Your task to perform on an android device: set an alarm Image 0: 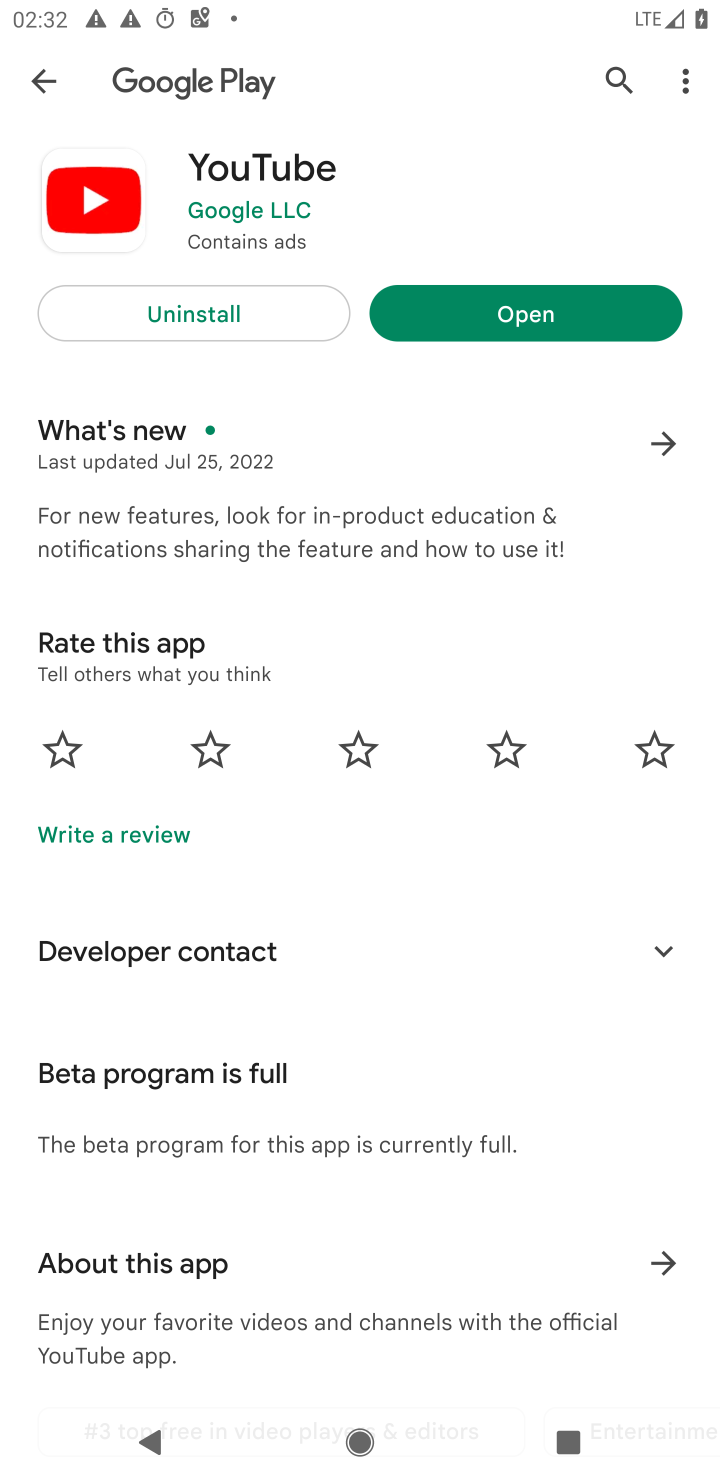
Step 0: press home button
Your task to perform on an android device: set an alarm Image 1: 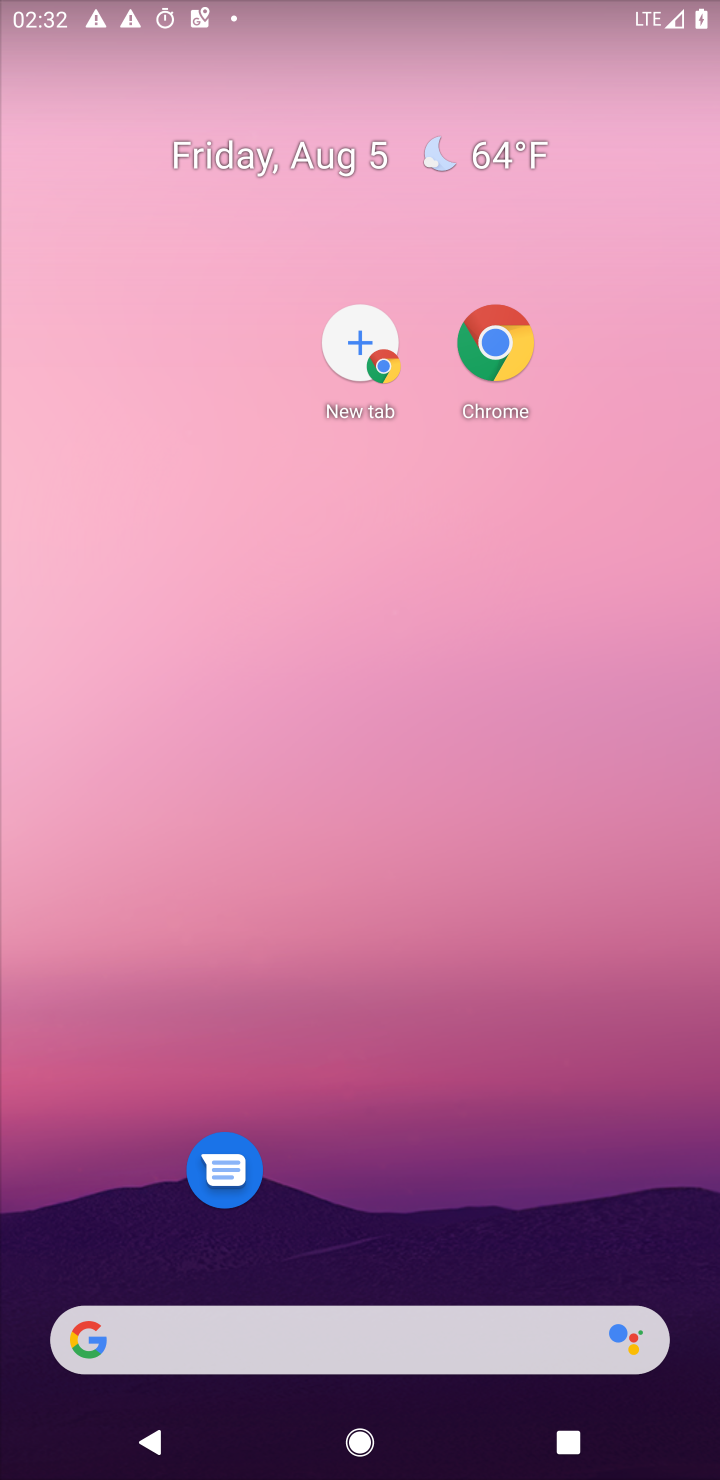
Step 1: drag from (196, 791) to (383, 221)
Your task to perform on an android device: set an alarm Image 2: 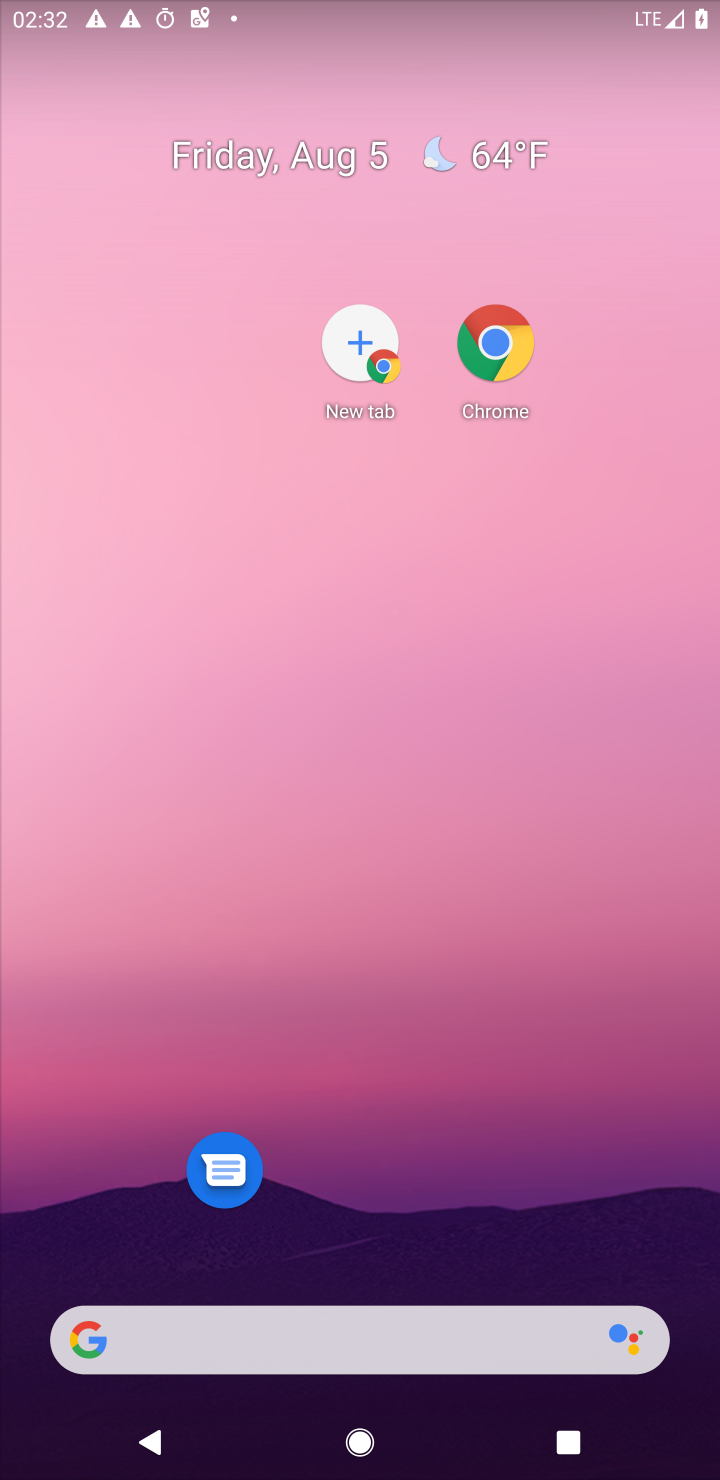
Step 2: drag from (125, 1051) to (453, 179)
Your task to perform on an android device: set an alarm Image 3: 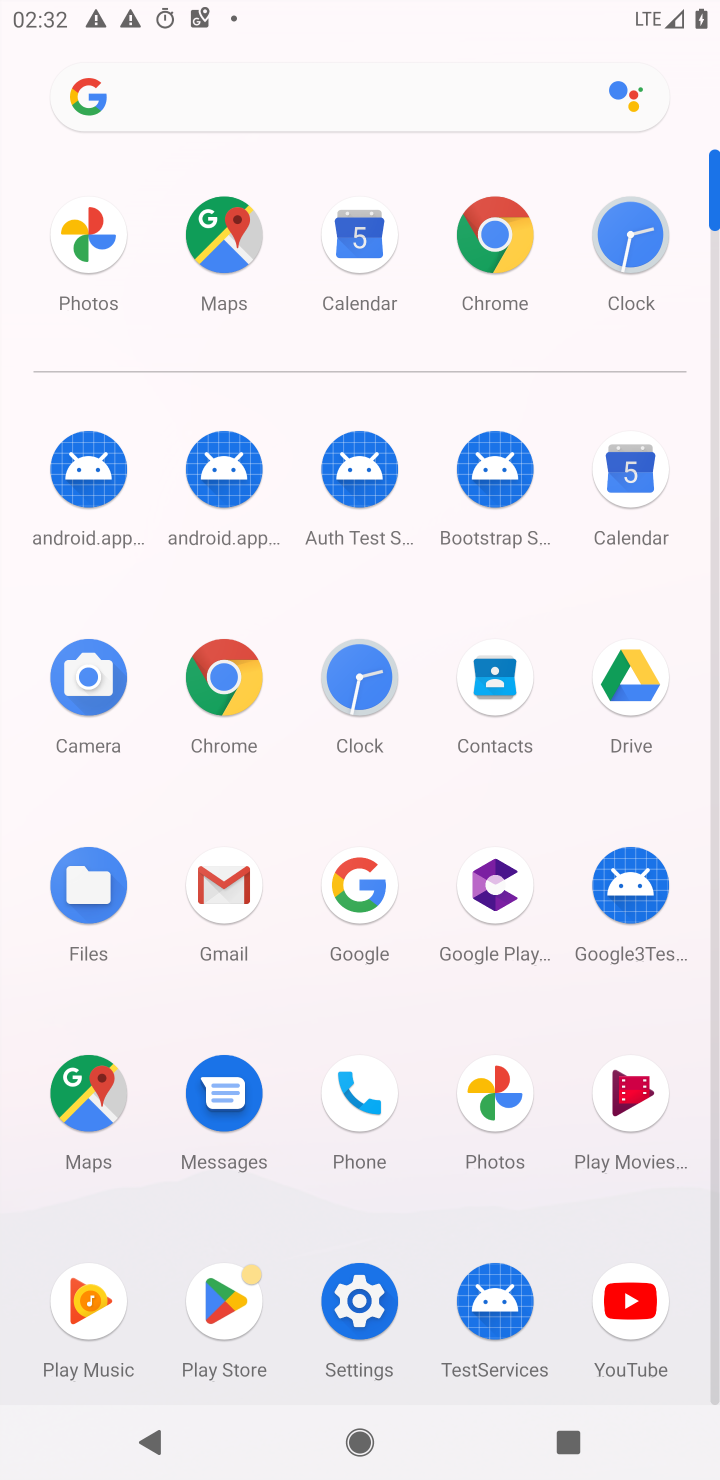
Step 3: click (364, 663)
Your task to perform on an android device: set an alarm Image 4: 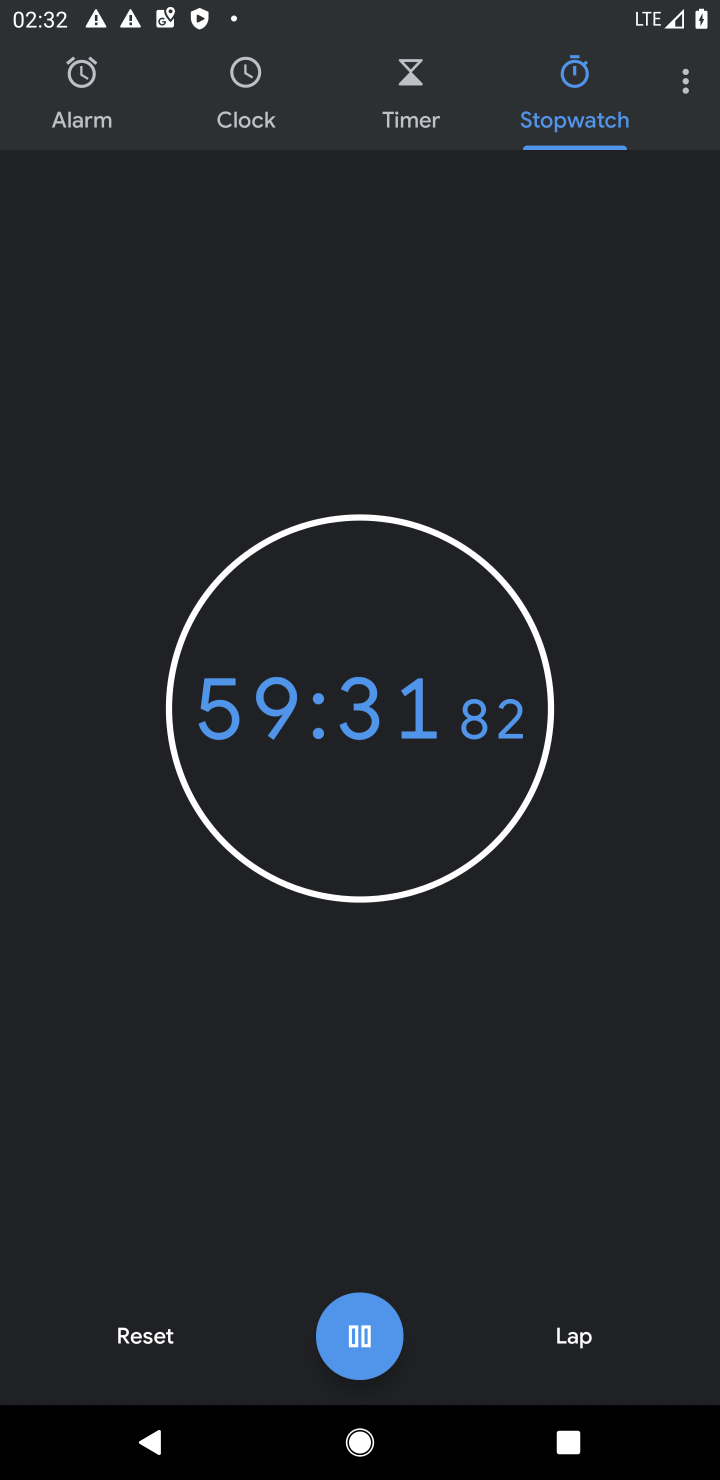
Step 4: click (159, 1340)
Your task to perform on an android device: set an alarm Image 5: 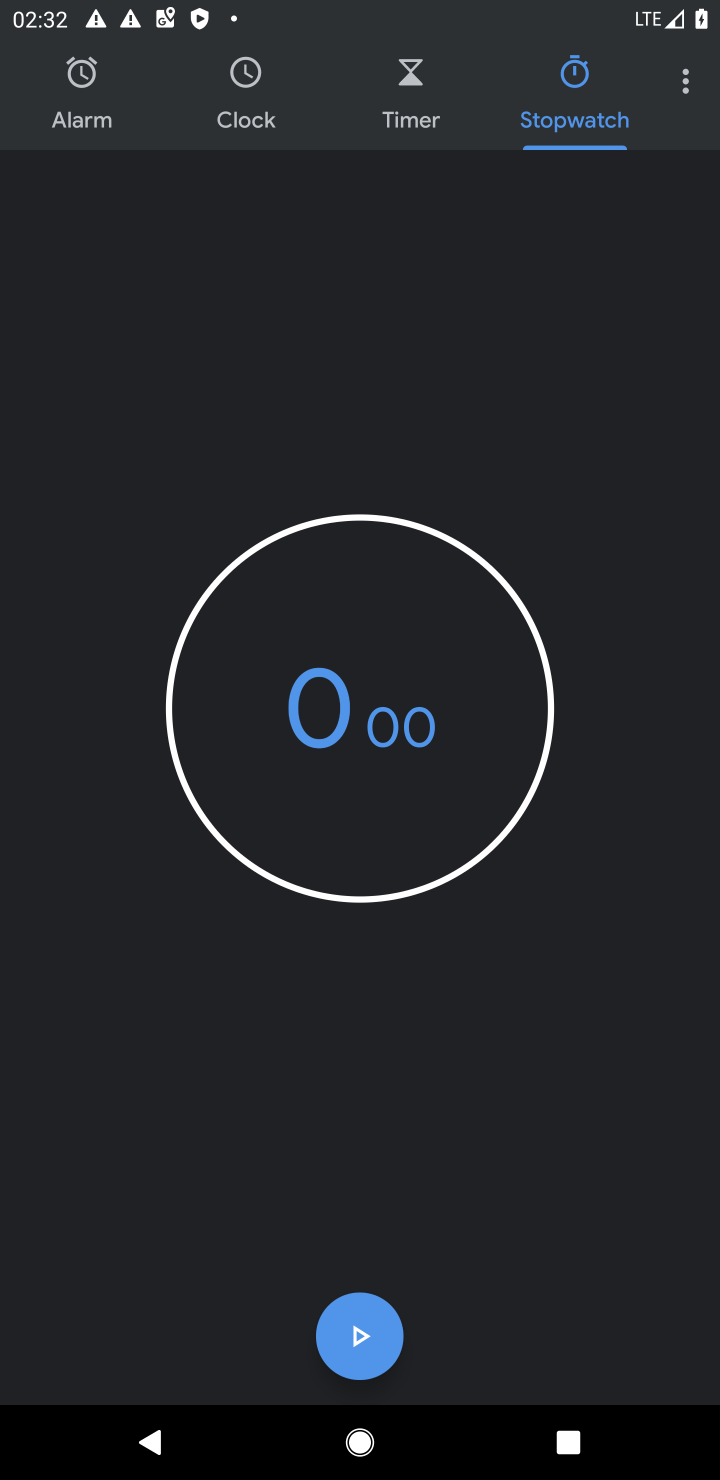
Step 5: click (68, 107)
Your task to perform on an android device: set an alarm Image 6: 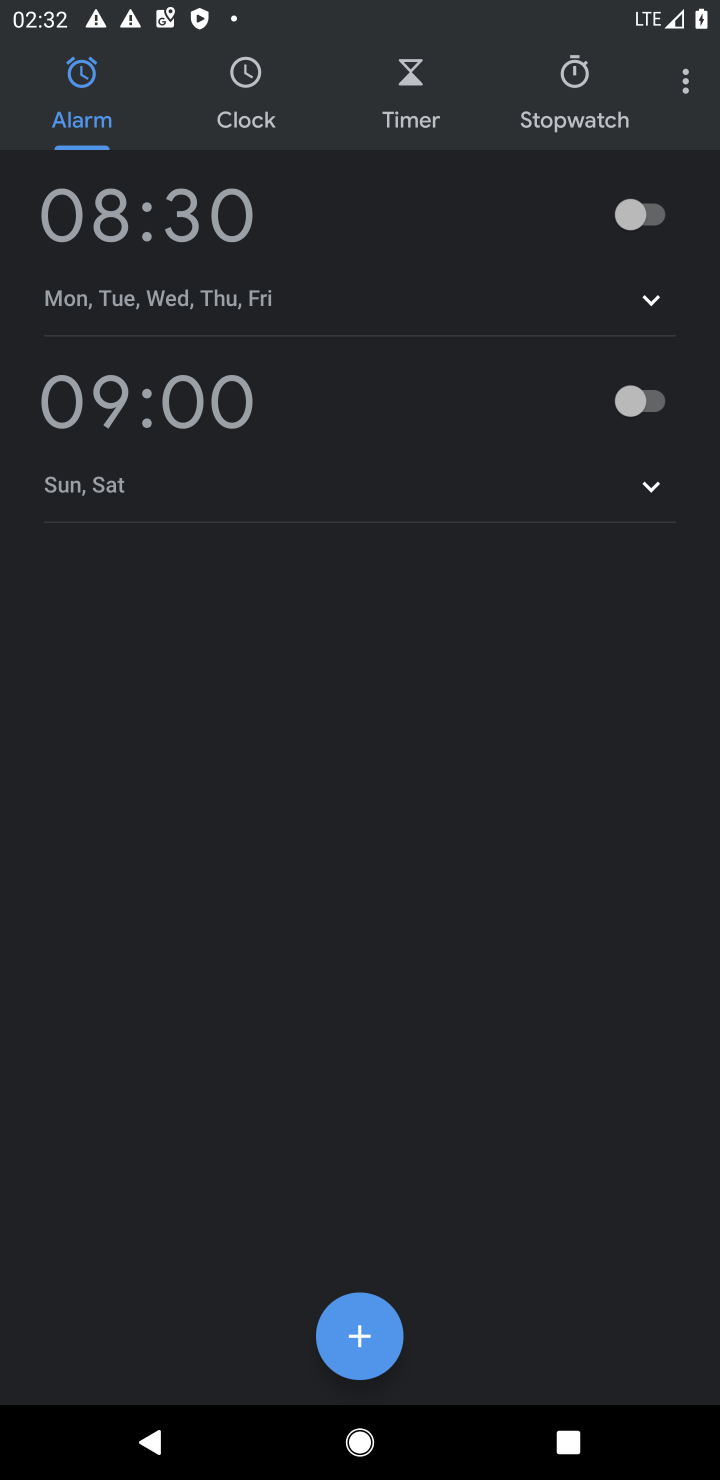
Step 6: click (374, 1319)
Your task to perform on an android device: set an alarm Image 7: 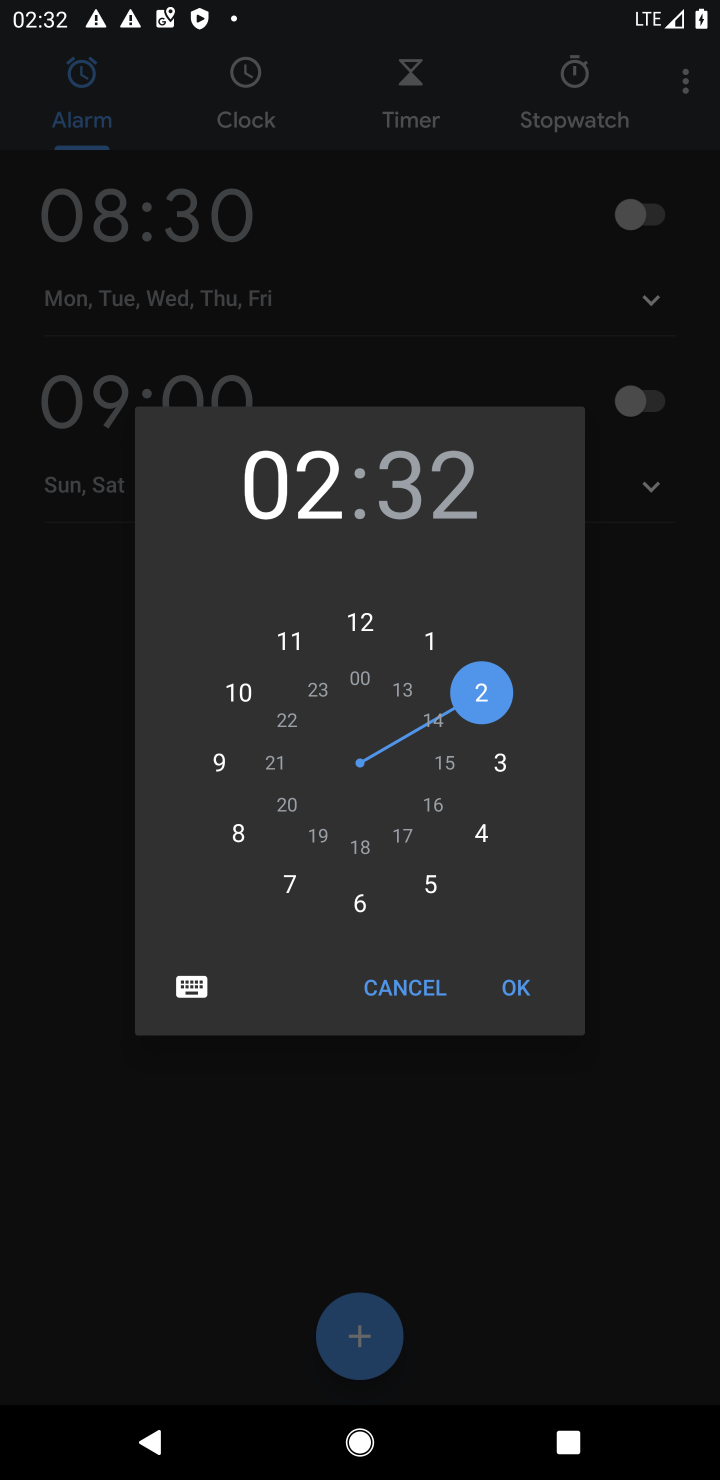
Step 7: click (504, 755)
Your task to perform on an android device: set an alarm Image 8: 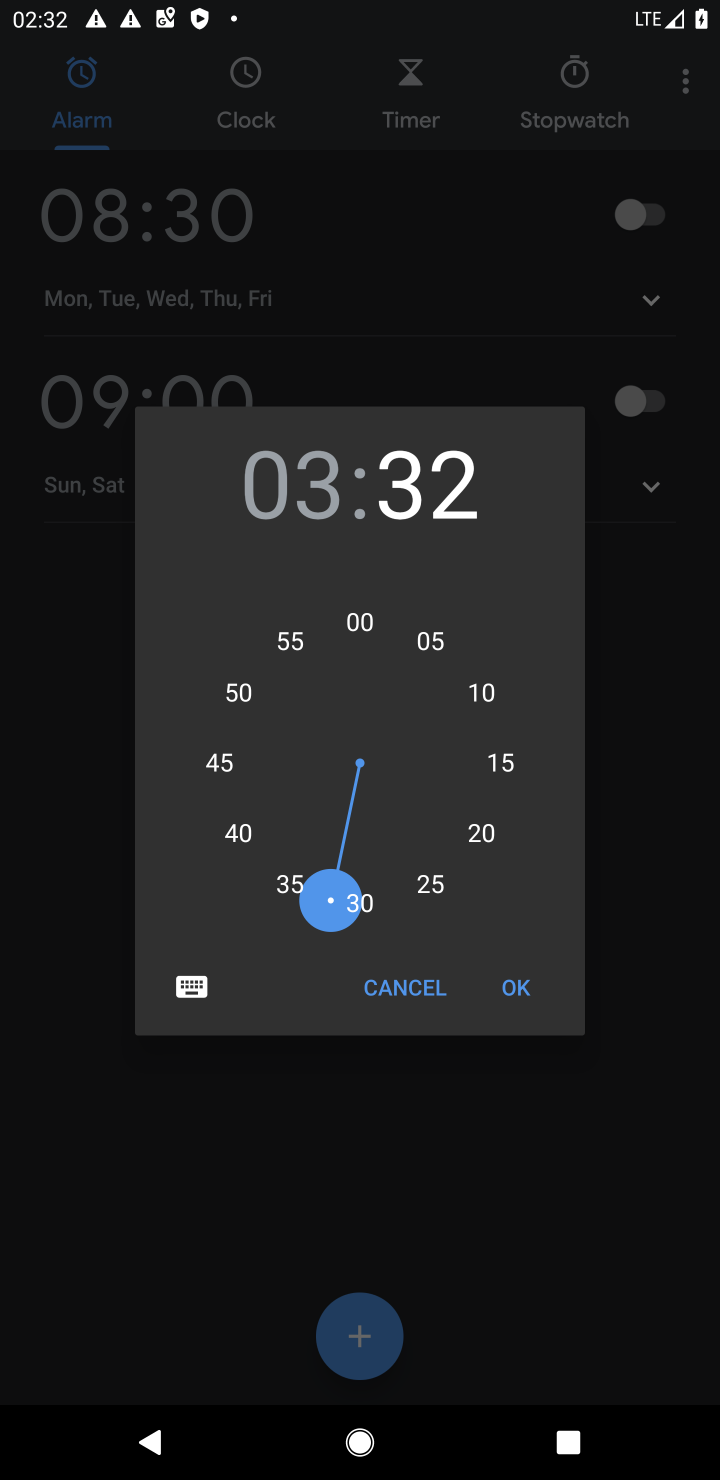
Step 8: click (369, 914)
Your task to perform on an android device: set an alarm Image 9: 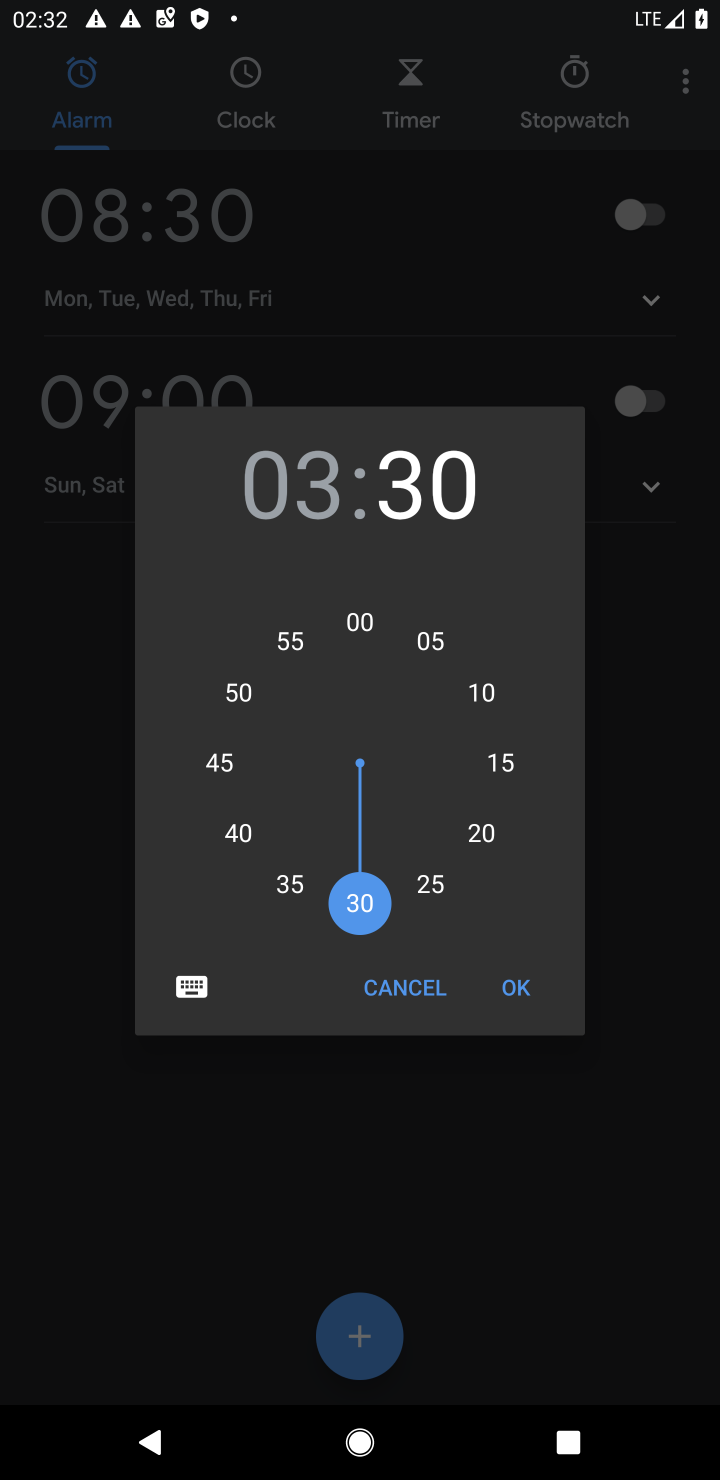
Step 9: click (533, 993)
Your task to perform on an android device: set an alarm Image 10: 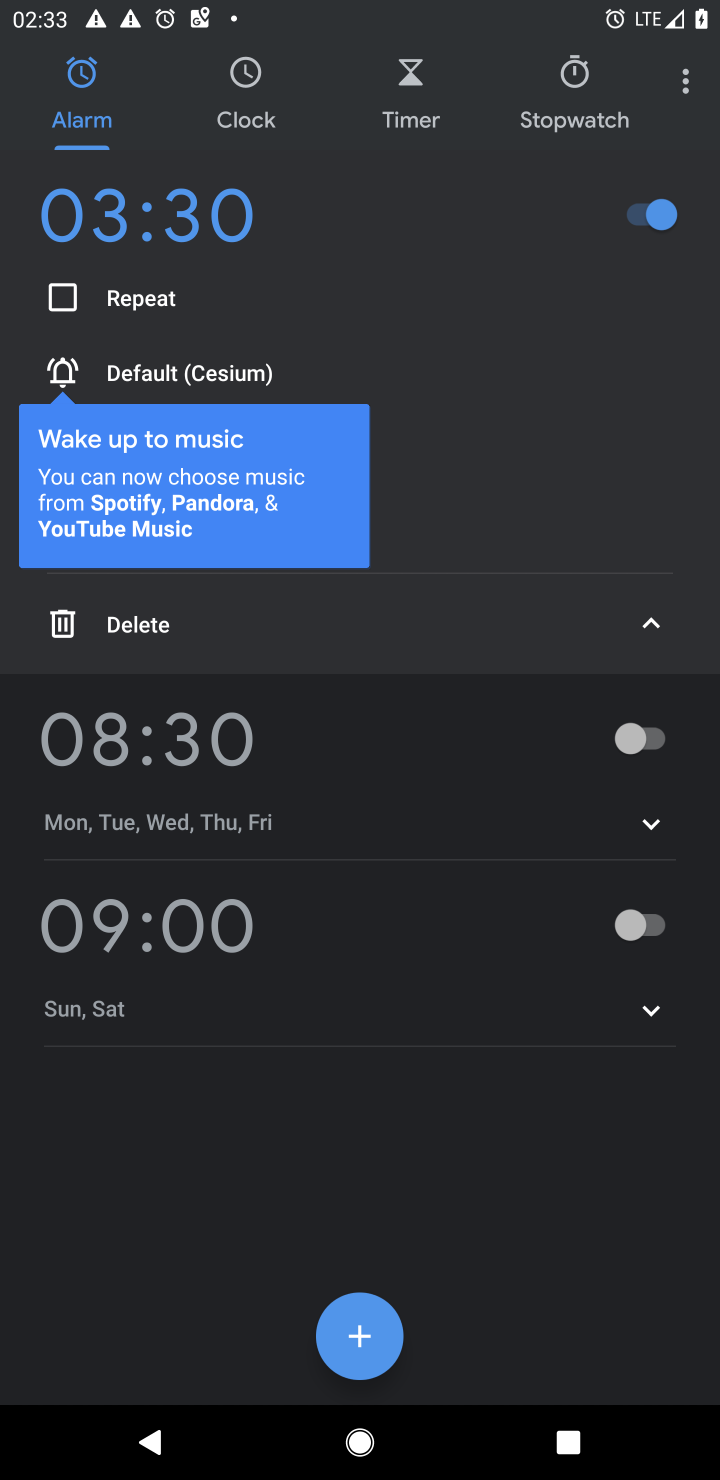
Step 10: task complete